Your task to perform on an android device: stop showing notifications on the lock screen Image 0: 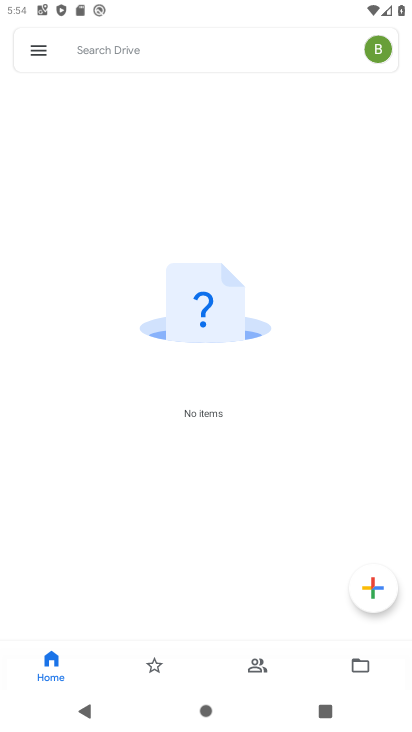
Step 0: press back button
Your task to perform on an android device: stop showing notifications on the lock screen Image 1: 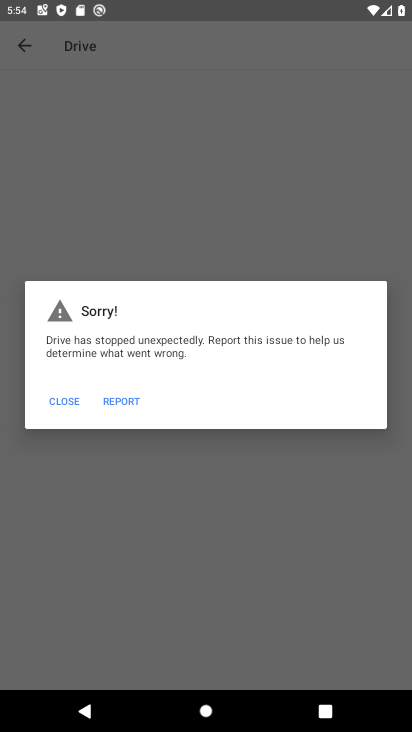
Step 1: press back button
Your task to perform on an android device: stop showing notifications on the lock screen Image 2: 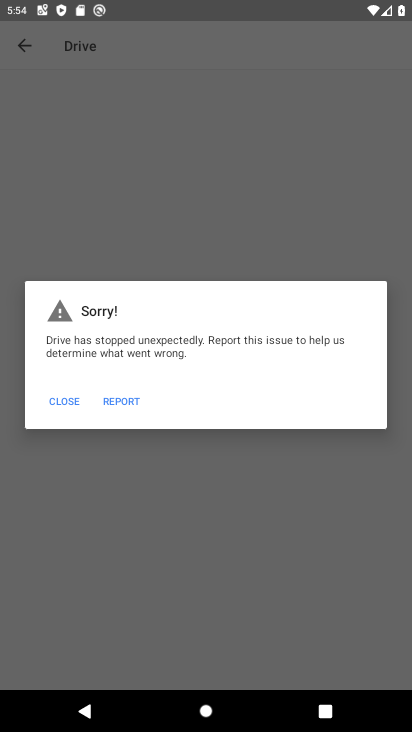
Step 2: press home button
Your task to perform on an android device: stop showing notifications on the lock screen Image 3: 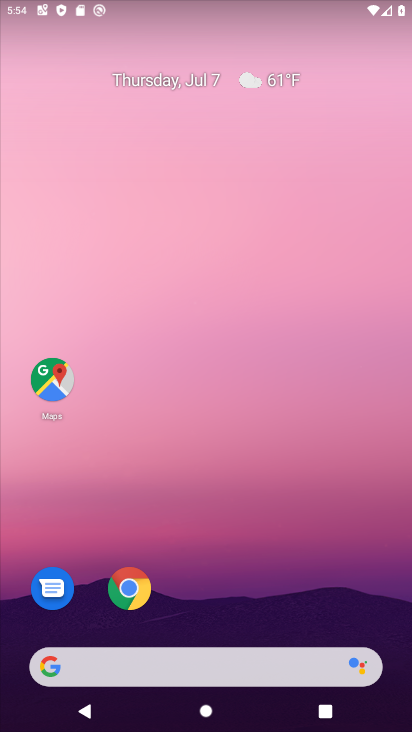
Step 3: drag from (208, 637) to (345, 50)
Your task to perform on an android device: stop showing notifications on the lock screen Image 4: 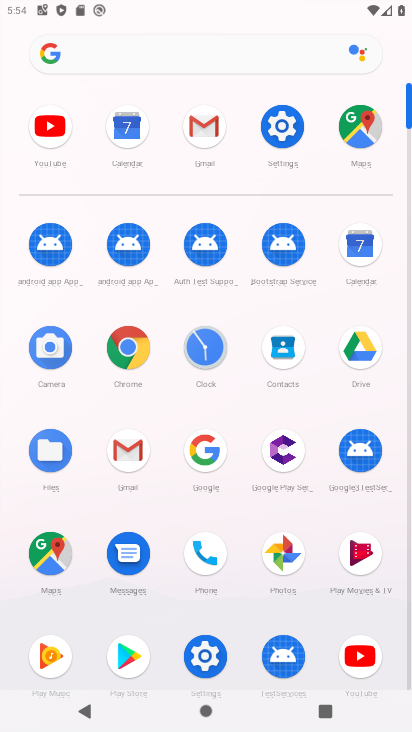
Step 4: click (282, 118)
Your task to perform on an android device: stop showing notifications on the lock screen Image 5: 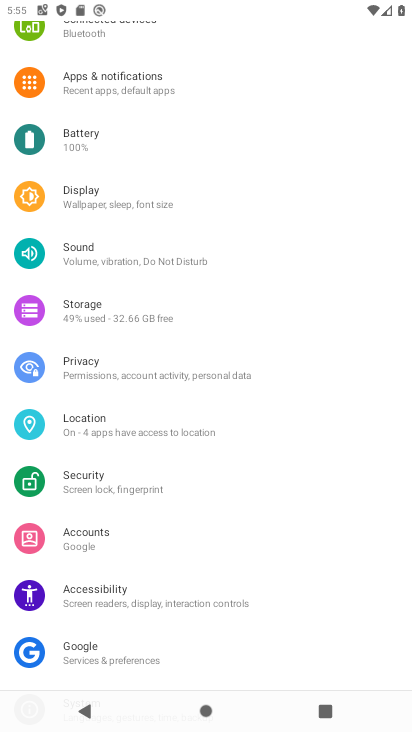
Step 5: click (123, 78)
Your task to perform on an android device: stop showing notifications on the lock screen Image 6: 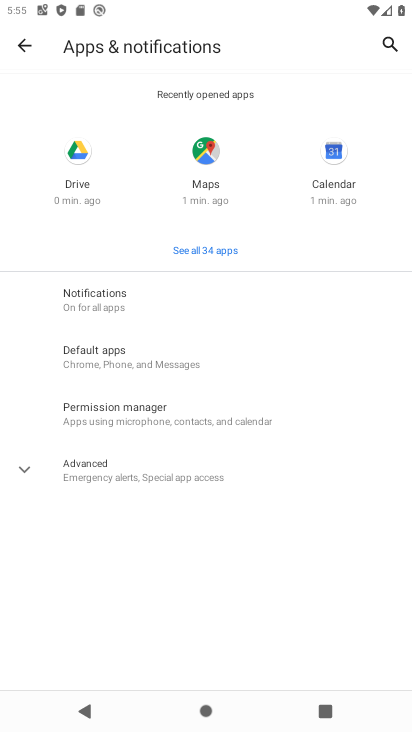
Step 6: click (85, 303)
Your task to perform on an android device: stop showing notifications on the lock screen Image 7: 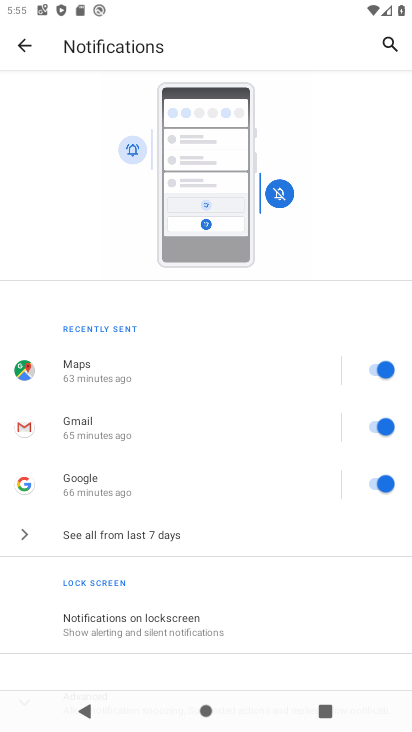
Step 7: click (146, 610)
Your task to perform on an android device: stop showing notifications on the lock screen Image 8: 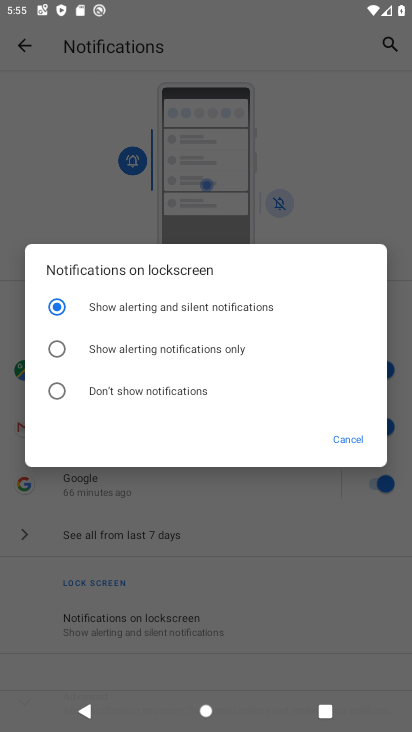
Step 8: click (57, 385)
Your task to perform on an android device: stop showing notifications on the lock screen Image 9: 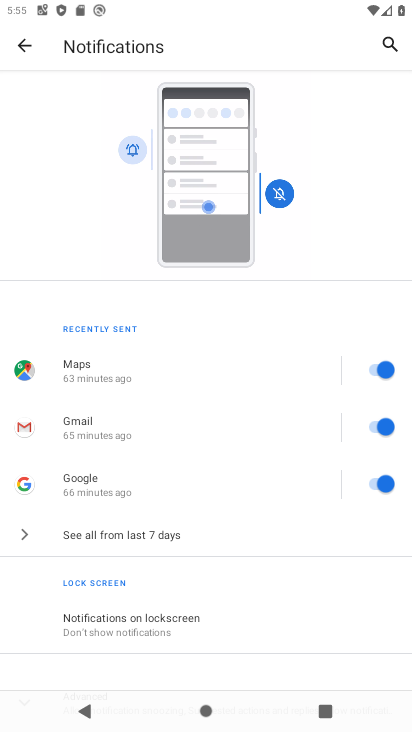
Step 9: task complete